Your task to perform on an android device: check out phone information Image 0: 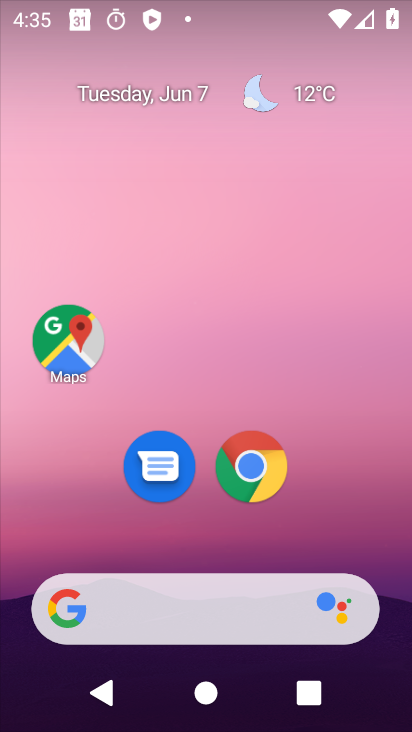
Step 0: drag from (403, 577) to (267, 107)
Your task to perform on an android device: check out phone information Image 1: 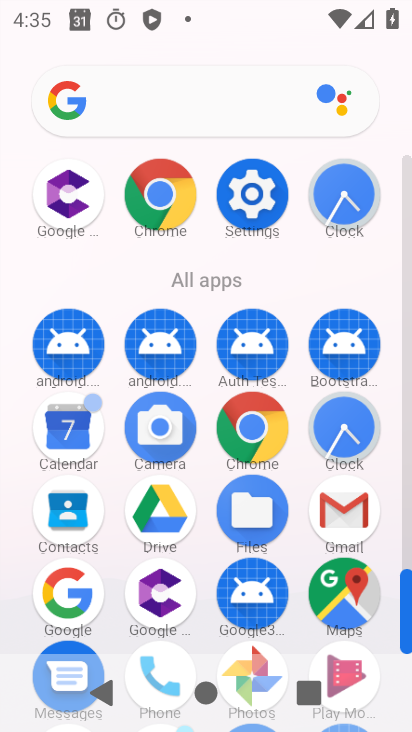
Step 1: click (267, 204)
Your task to perform on an android device: check out phone information Image 2: 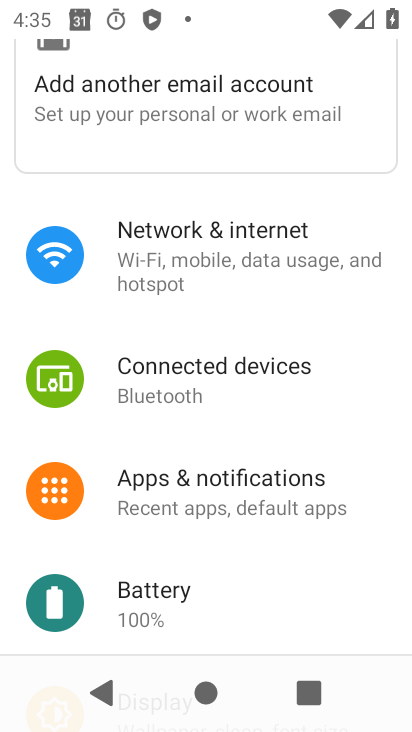
Step 2: drag from (367, 598) to (310, 28)
Your task to perform on an android device: check out phone information Image 3: 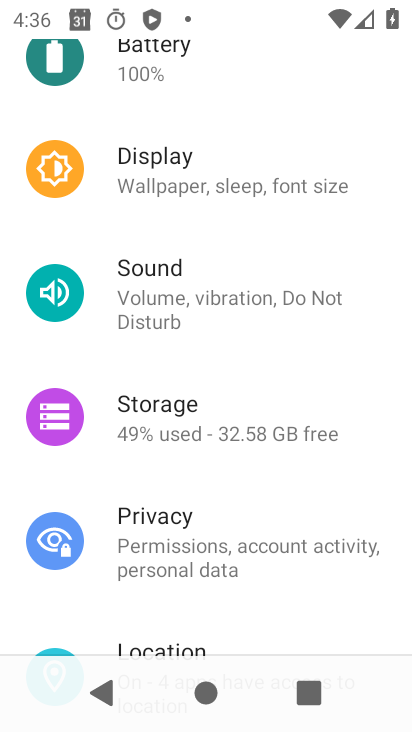
Step 3: drag from (343, 618) to (311, 19)
Your task to perform on an android device: check out phone information Image 4: 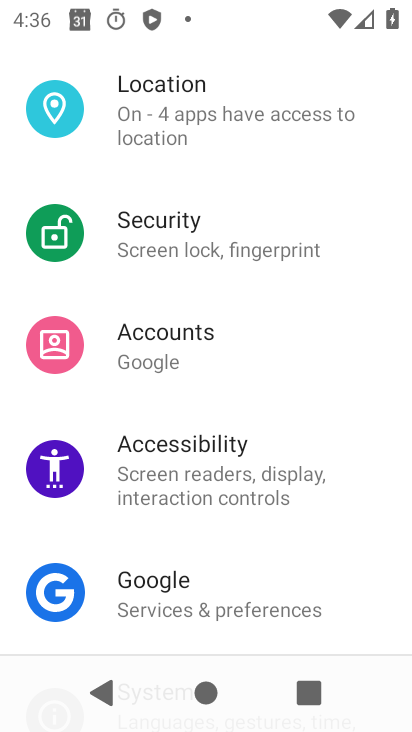
Step 4: drag from (295, 569) to (271, 87)
Your task to perform on an android device: check out phone information Image 5: 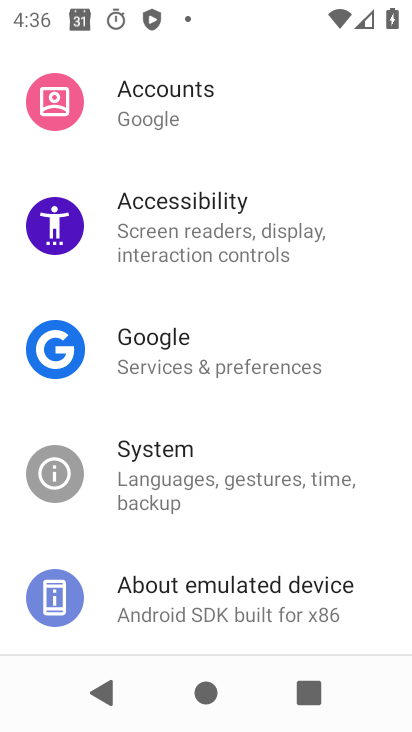
Step 5: click (378, 603)
Your task to perform on an android device: check out phone information Image 6: 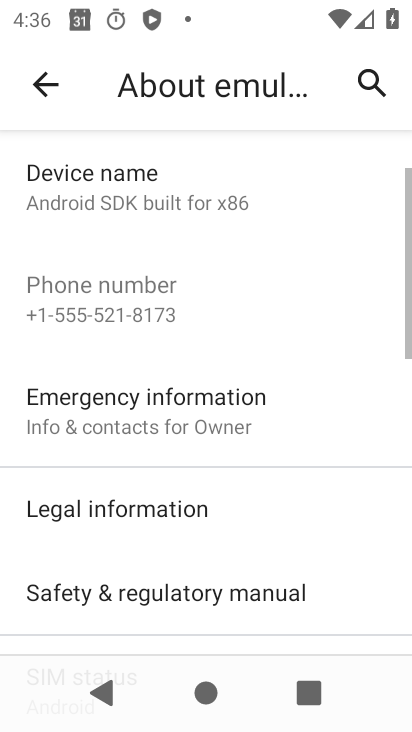
Step 6: task complete